Your task to perform on an android device: turn on location history Image 0: 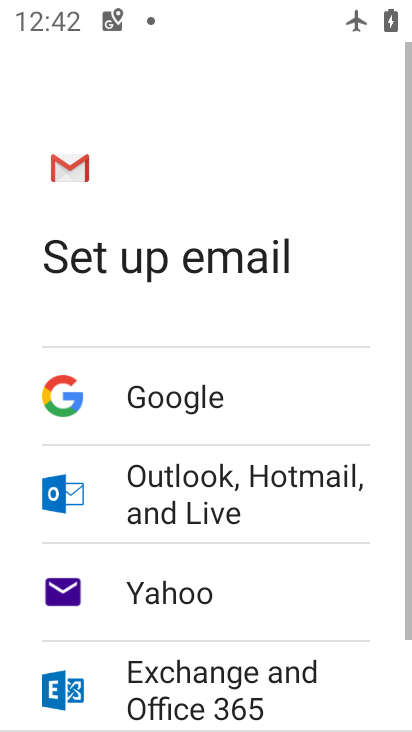
Step 0: press home button
Your task to perform on an android device: turn on location history Image 1: 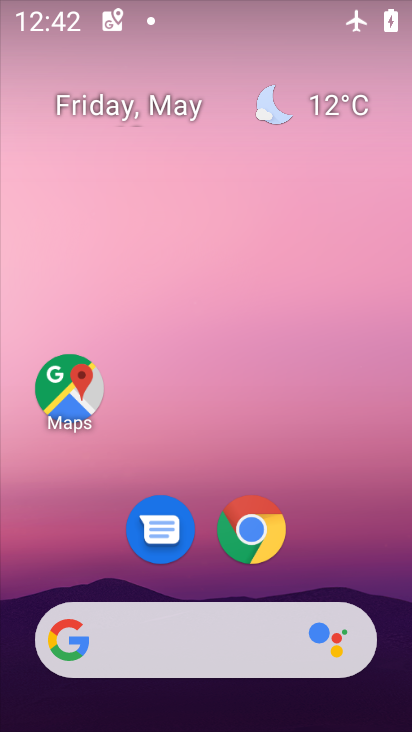
Step 1: drag from (355, 427) to (329, 243)
Your task to perform on an android device: turn on location history Image 2: 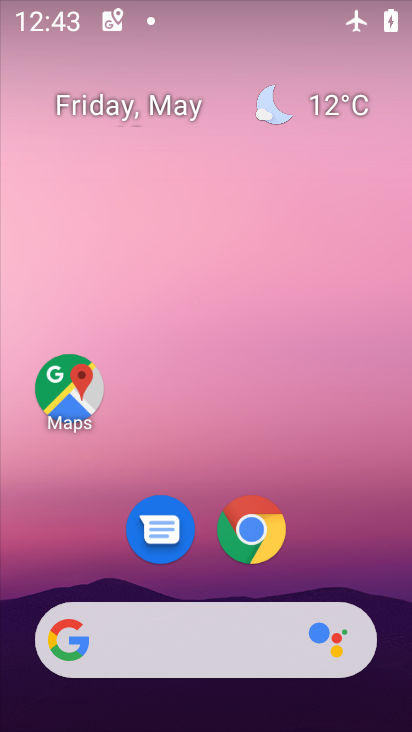
Step 2: drag from (292, 381) to (293, 183)
Your task to perform on an android device: turn on location history Image 3: 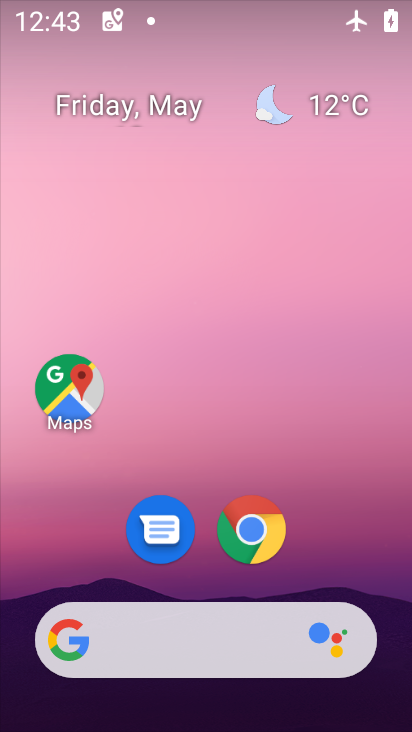
Step 3: drag from (198, 475) to (220, 258)
Your task to perform on an android device: turn on location history Image 4: 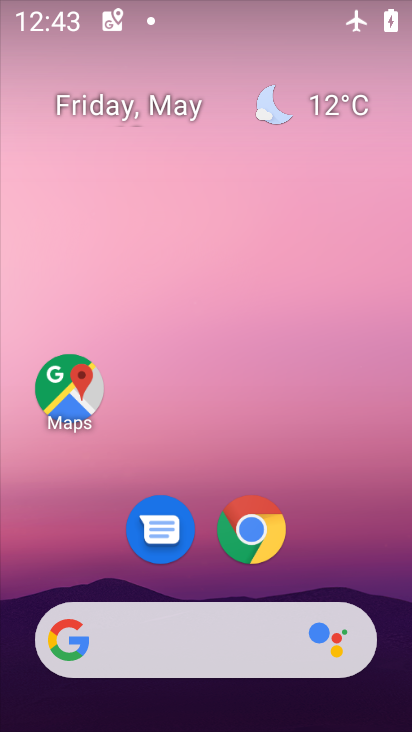
Step 4: drag from (181, 592) to (190, 254)
Your task to perform on an android device: turn on location history Image 5: 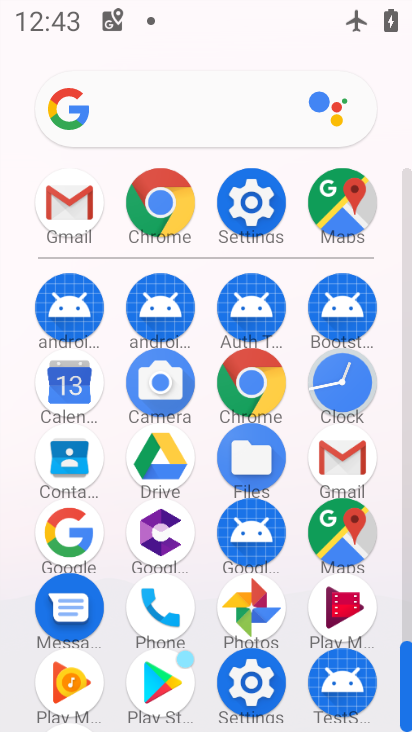
Step 5: click (237, 201)
Your task to perform on an android device: turn on location history Image 6: 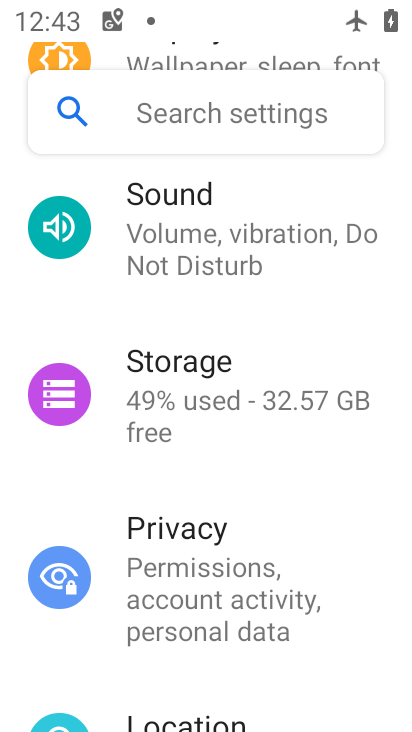
Step 6: drag from (152, 293) to (163, 598)
Your task to perform on an android device: turn on location history Image 7: 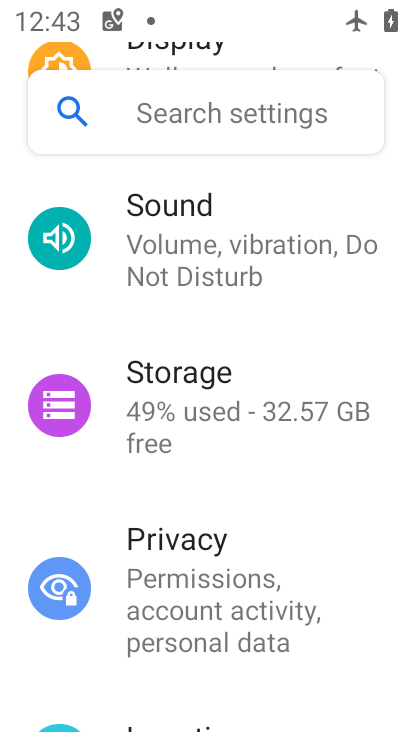
Step 7: drag from (244, 360) to (232, 545)
Your task to perform on an android device: turn on location history Image 8: 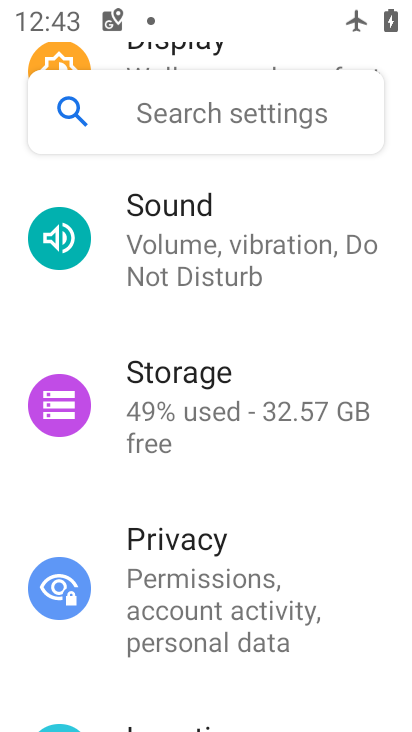
Step 8: drag from (204, 355) to (208, 606)
Your task to perform on an android device: turn on location history Image 9: 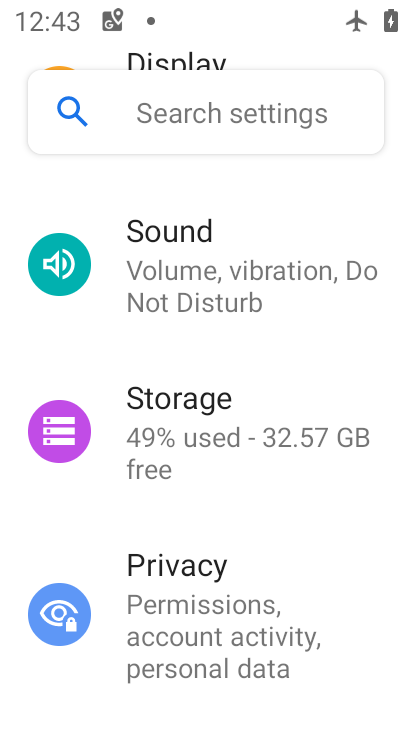
Step 9: drag from (194, 379) to (188, 560)
Your task to perform on an android device: turn on location history Image 10: 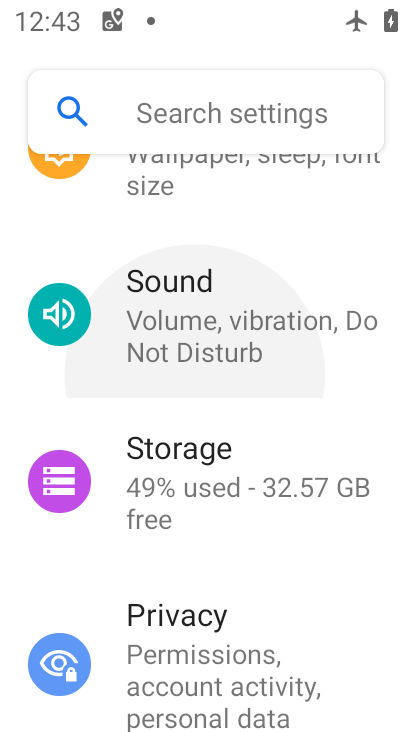
Step 10: drag from (210, 431) to (210, 516)
Your task to perform on an android device: turn on location history Image 11: 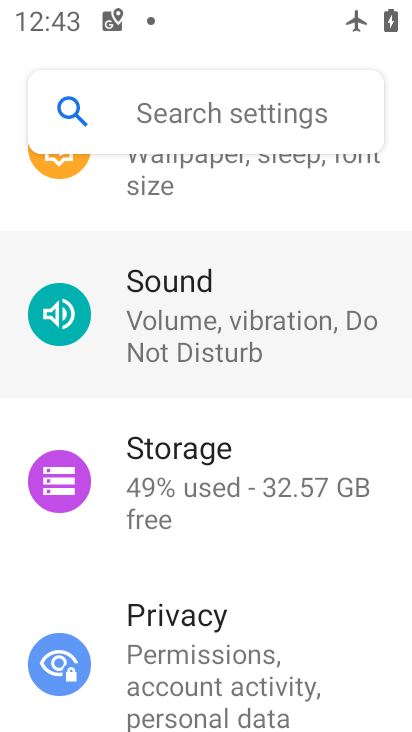
Step 11: drag from (209, 279) to (207, 642)
Your task to perform on an android device: turn on location history Image 12: 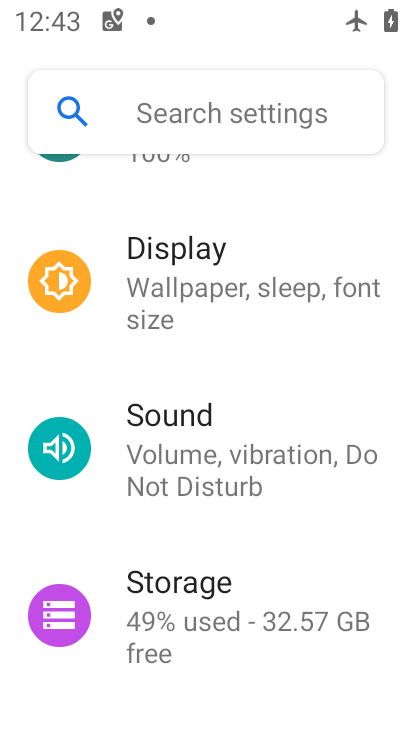
Step 12: drag from (244, 323) to (227, 713)
Your task to perform on an android device: turn on location history Image 13: 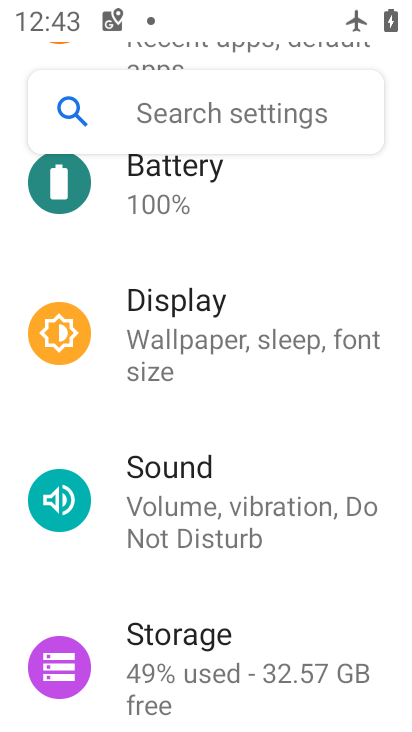
Step 13: drag from (159, 250) to (190, 554)
Your task to perform on an android device: turn on location history Image 14: 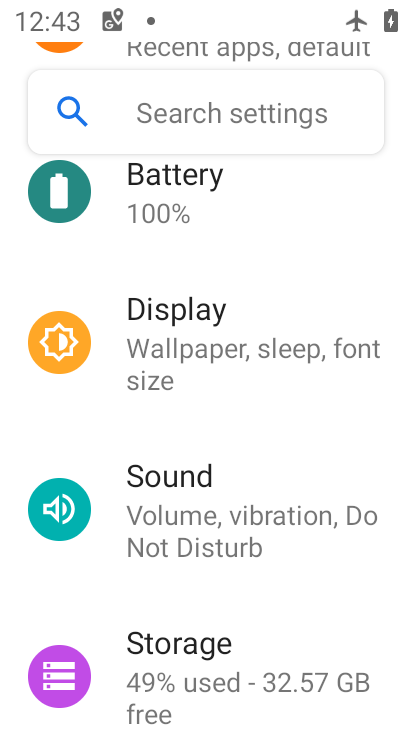
Step 14: drag from (202, 221) to (162, 585)
Your task to perform on an android device: turn on location history Image 15: 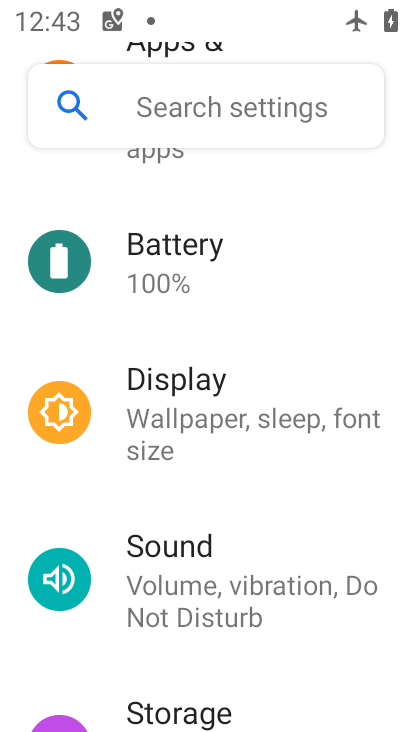
Step 15: drag from (164, 543) to (177, 612)
Your task to perform on an android device: turn on location history Image 16: 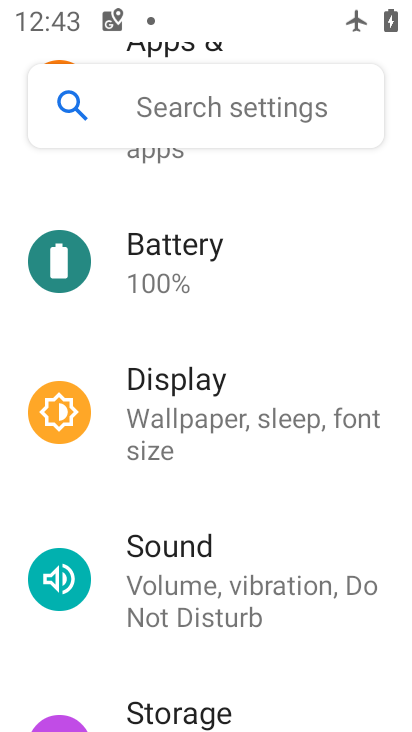
Step 16: drag from (260, 293) to (273, 583)
Your task to perform on an android device: turn on location history Image 17: 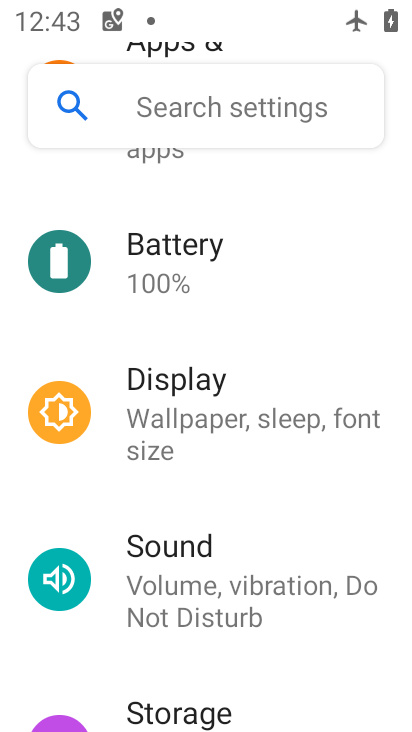
Step 17: drag from (278, 342) to (189, 532)
Your task to perform on an android device: turn on location history Image 18: 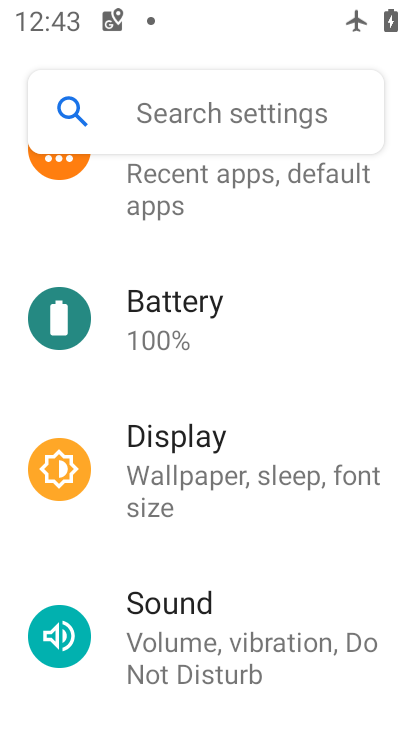
Step 18: drag from (156, 271) to (177, 580)
Your task to perform on an android device: turn on location history Image 19: 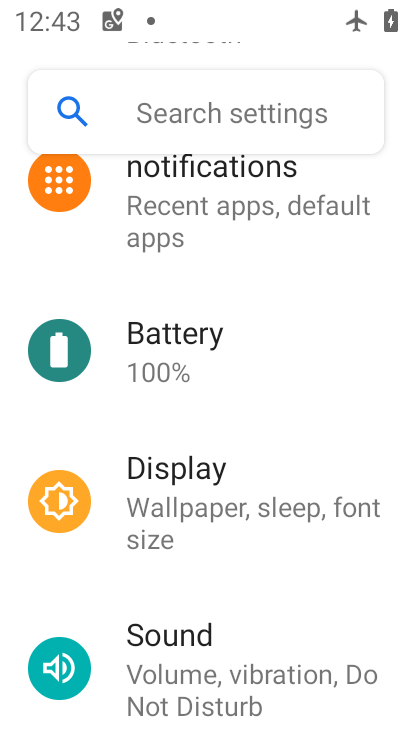
Step 19: drag from (241, 403) to (247, 603)
Your task to perform on an android device: turn on location history Image 20: 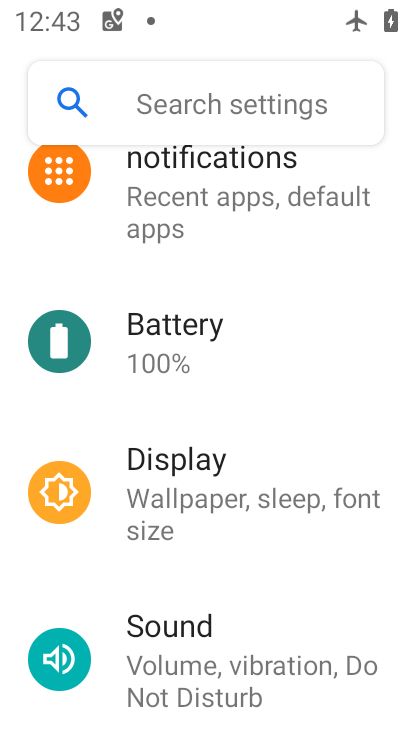
Step 20: drag from (224, 302) to (225, 551)
Your task to perform on an android device: turn on location history Image 21: 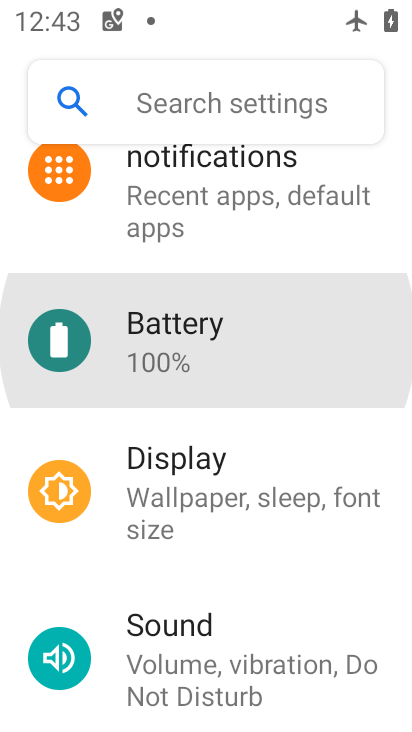
Step 21: drag from (158, 397) to (168, 483)
Your task to perform on an android device: turn on location history Image 22: 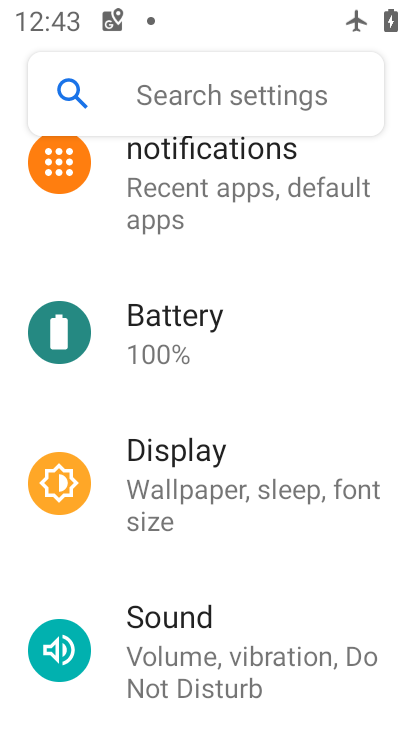
Step 22: drag from (189, 510) to (190, 578)
Your task to perform on an android device: turn on location history Image 23: 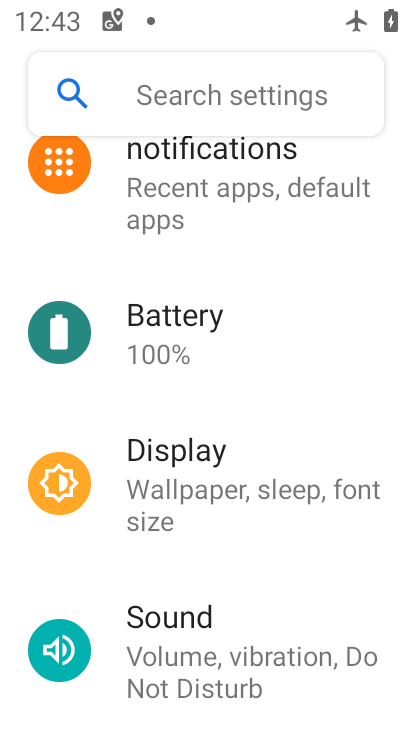
Step 23: drag from (200, 347) to (217, 659)
Your task to perform on an android device: turn on location history Image 24: 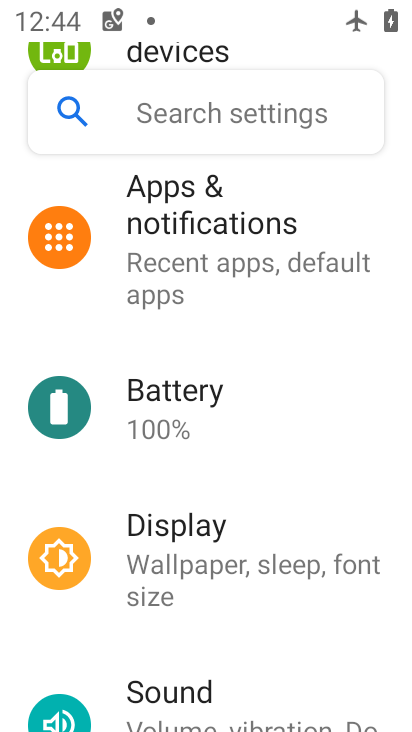
Step 24: drag from (269, 706) to (264, 357)
Your task to perform on an android device: turn on location history Image 25: 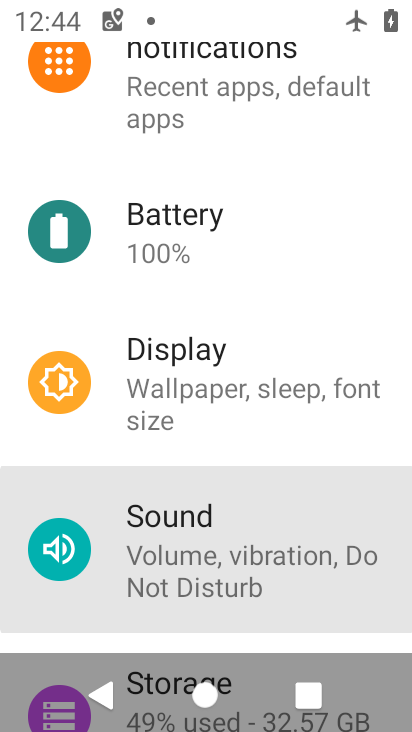
Step 25: drag from (292, 646) to (292, 430)
Your task to perform on an android device: turn on location history Image 26: 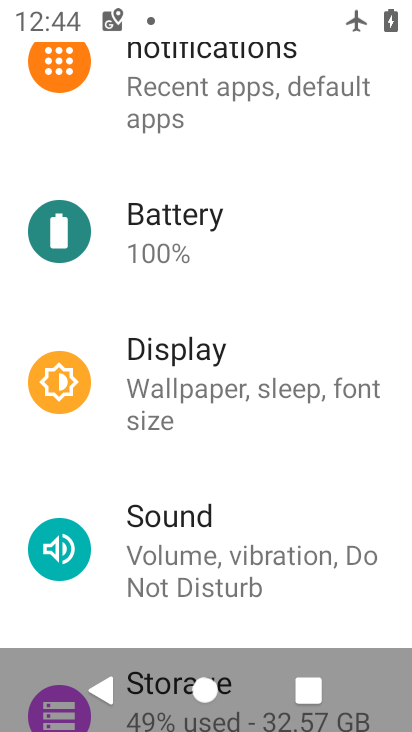
Step 26: drag from (282, 662) to (273, 288)
Your task to perform on an android device: turn on location history Image 27: 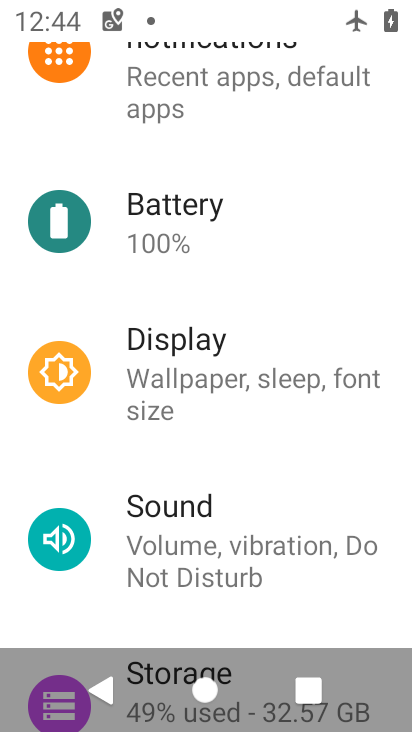
Step 27: drag from (278, 469) to (278, 249)
Your task to perform on an android device: turn on location history Image 28: 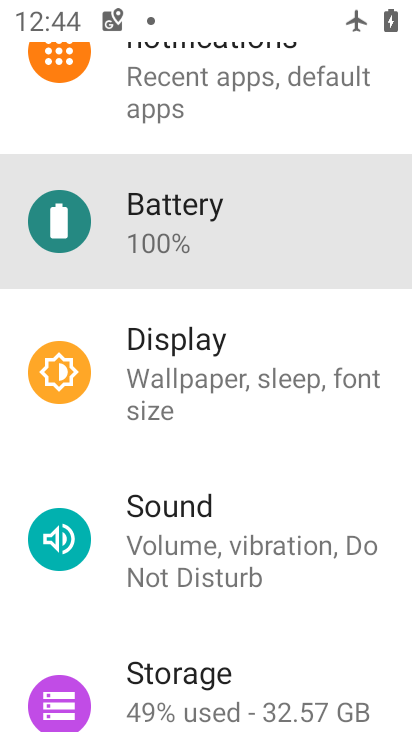
Step 28: drag from (269, 410) to (235, 341)
Your task to perform on an android device: turn on location history Image 29: 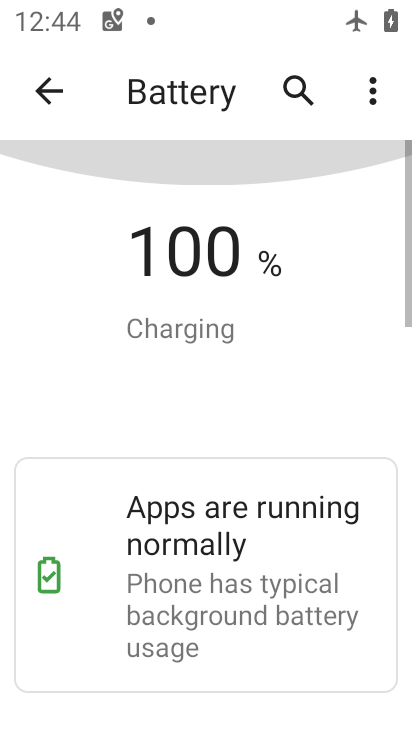
Step 29: drag from (268, 548) to (269, 174)
Your task to perform on an android device: turn on location history Image 30: 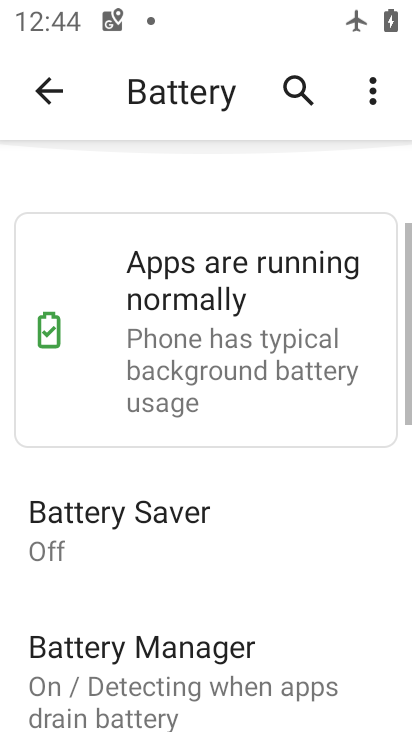
Step 30: drag from (245, 521) to (260, 366)
Your task to perform on an android device: turn on location history Image 31: 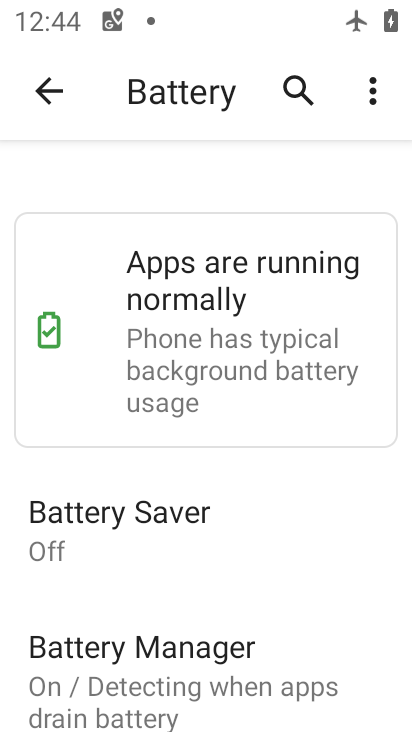
Step 31: click (47, 83)
Your task to perform on an android device: turn on location history Image 32: 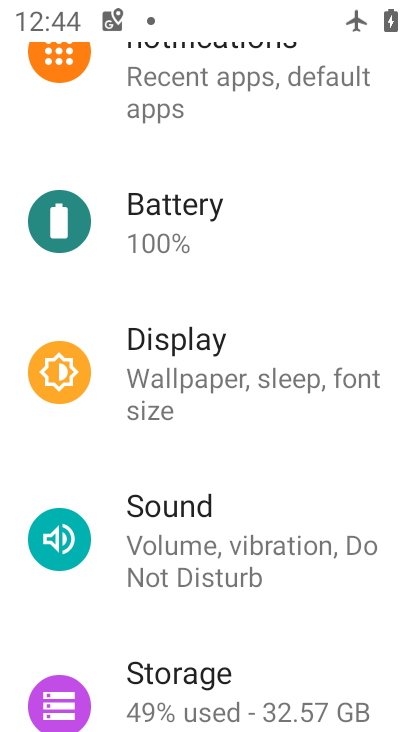
Step 32: drag from (243, 545) to (266, 381)
Your task to perform on an android device: turn on location history Image 33: 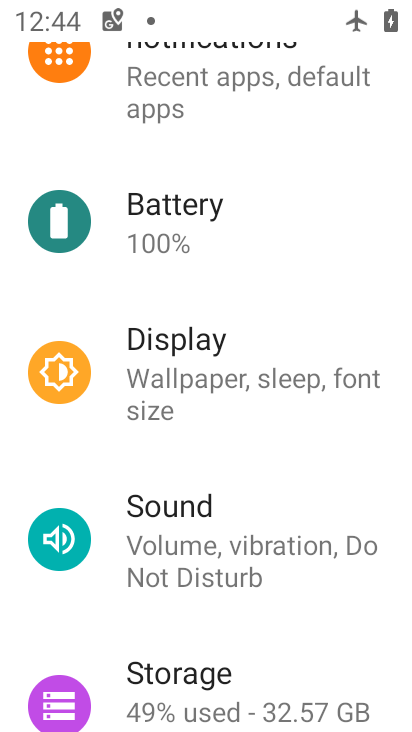
Step 33: drag from (244, 570) to (259, 289)
Your task to perform on an android device: turn on location history Image 34: 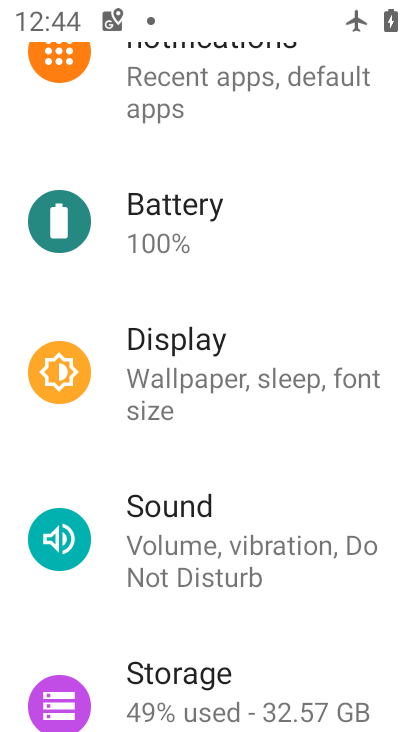
Step 34: drag from (239, 487) to (248, 236)
Your task to perform on an android device: turn on location history Image 35: 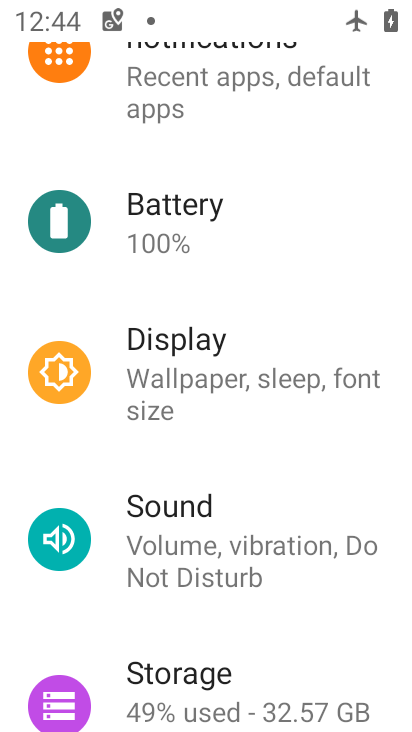
Step 35: drag from (209, 517) to (274, 251)
Your task to perform on an android device: turn on location history Image 36: 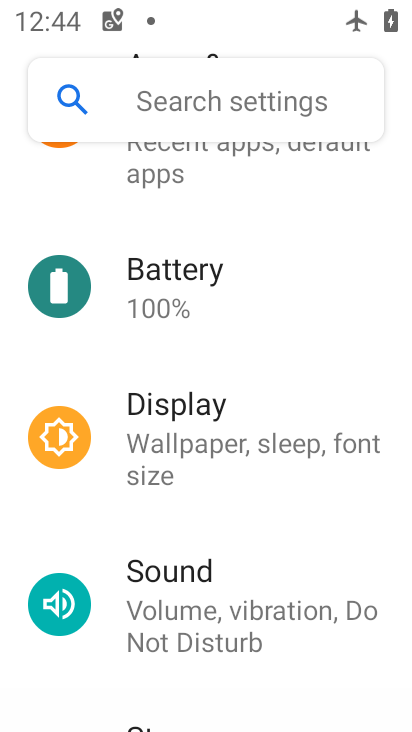
Step 36: drag from (268, 499) to (299, 188)
Your task to perform on an android device: turn on location history Image 37: 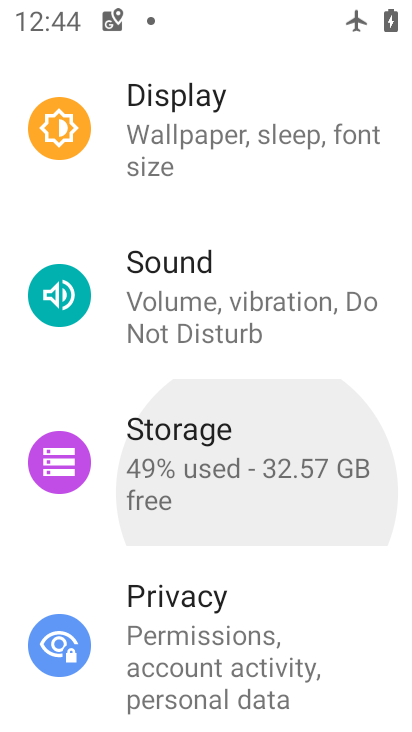
Step 37: drag from (253, 485) to (248, 286)
Your task to perform on an android device: turn on location history Image 38: 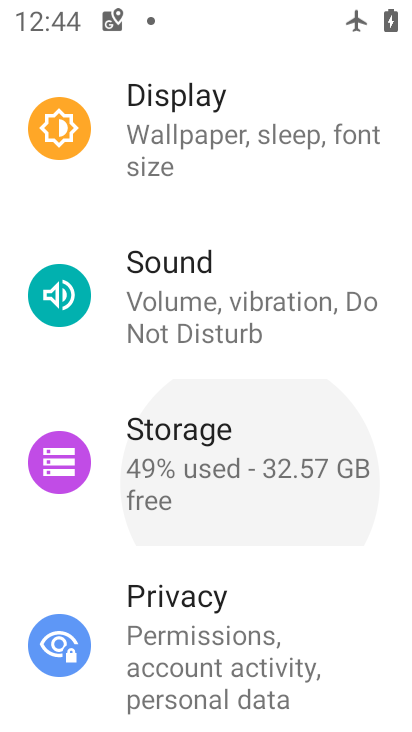
Step 38: drag from (233, 541) to (274, 304)
Your task to perform on an android device: turn on location history Image 39: 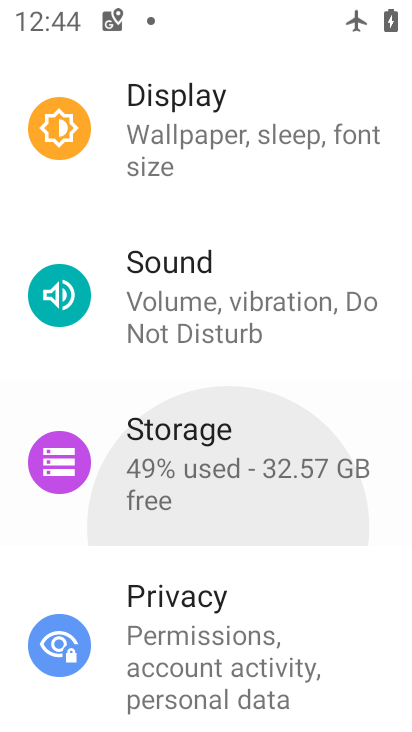
Step 39: drag from (259, 604) to (273, 311)
Your task to perform on an android device: turn on location history Image 40: 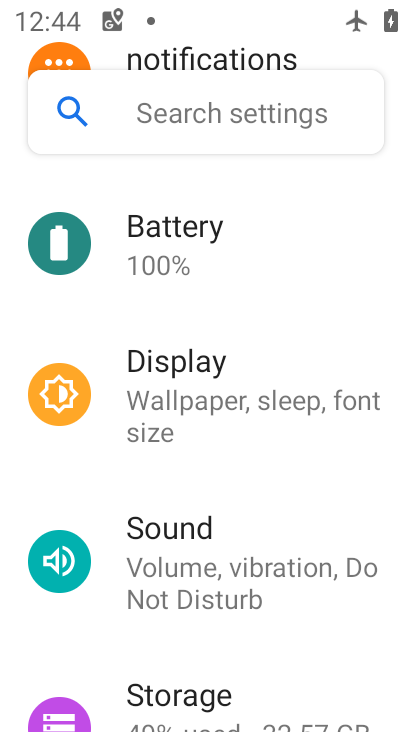
Step 40: drag from (246, 609) to (271, 312)
Your task to perform on an android device: turn on location history Image 41: 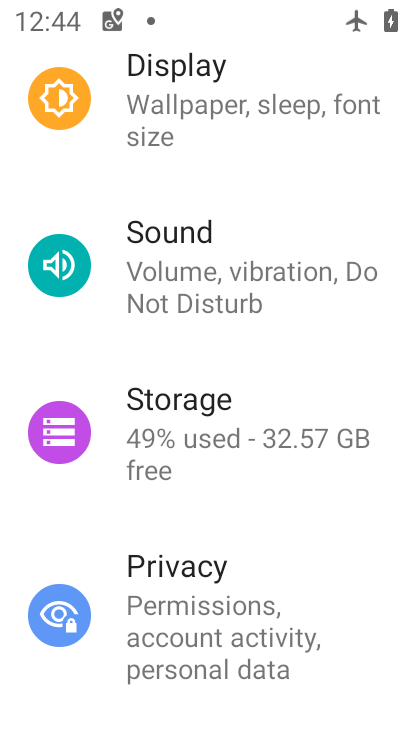
Step 41: drag from (225, 595) to (227, 302)
Your task to perform on an android device: turn on location history Image 42: 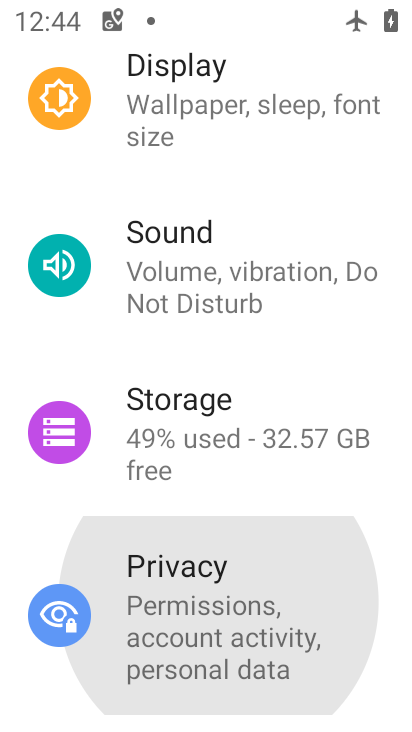
Step 42: drag from (217, 620) to (217, 241)
Your task to perform on an android device: turn on location history Image 43: 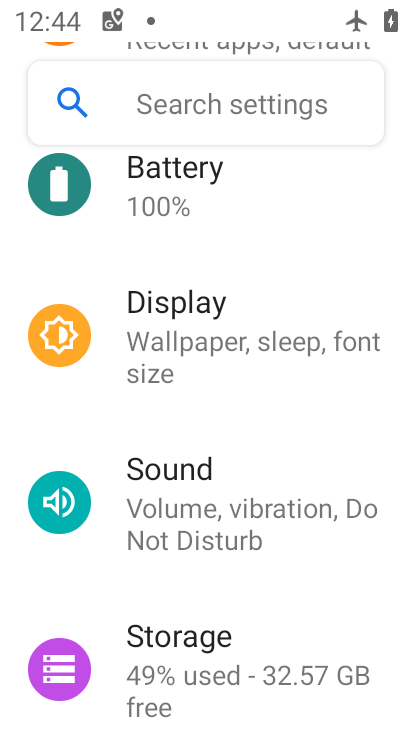
Step 43: drag from (199, 510) to (230, 200)
Your task to perform on an android device: turn on location history Image 44: 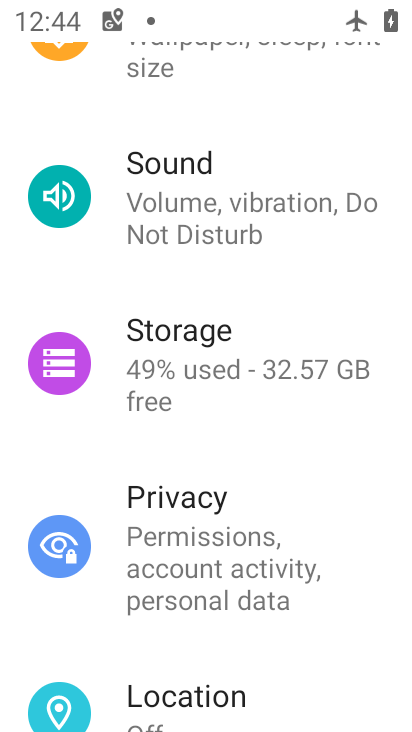
Step 44: drag from (254, 225) to (246, 543)
Your task to perform on an android device: turn on location history Image 45: 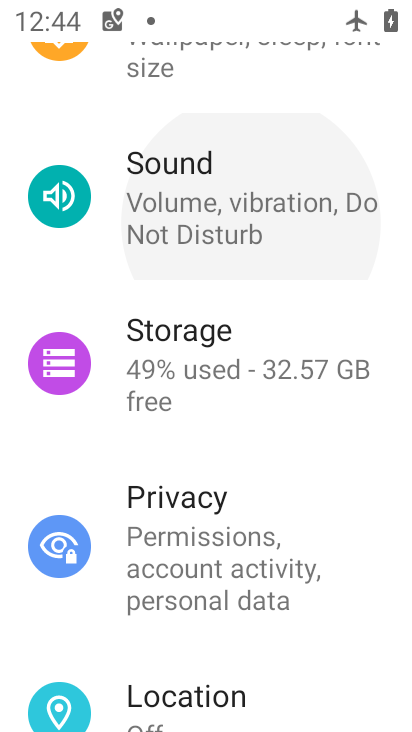
Step 45: drag from (227, 283) to (244, 627)
Your task to perform on an android device: turn on location history Image 46: 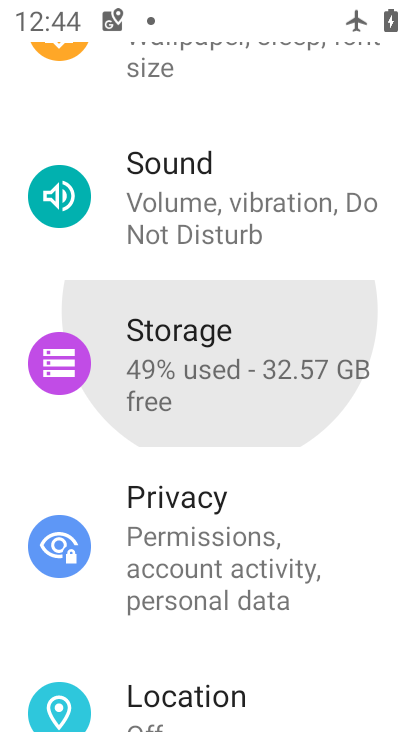
Step 46: drag from (227, 258) to (202, 532)
Your task to perform on an android device: turn on location history Image 47: 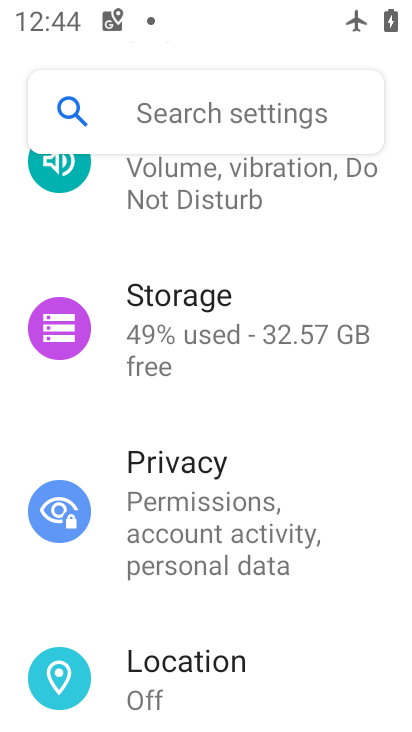
Step 47: drag from (204, 141) to (196, 325)
Your task to perform on an android device: turn on location history Image 48: 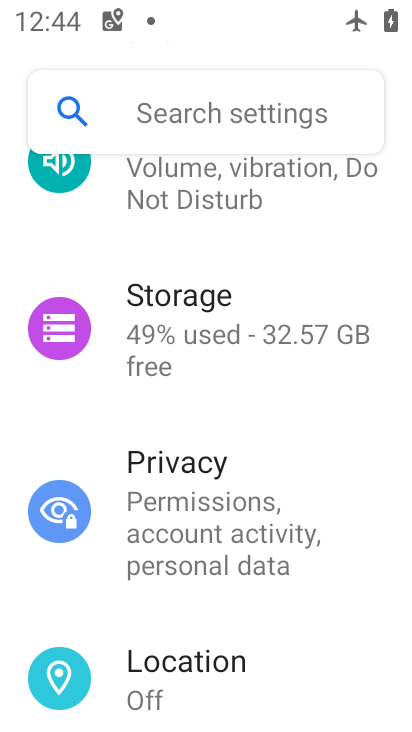
Step 48: drag from (185, 82) to (171, 385)
Your task to perform on an android device: turn on location history Image 49: 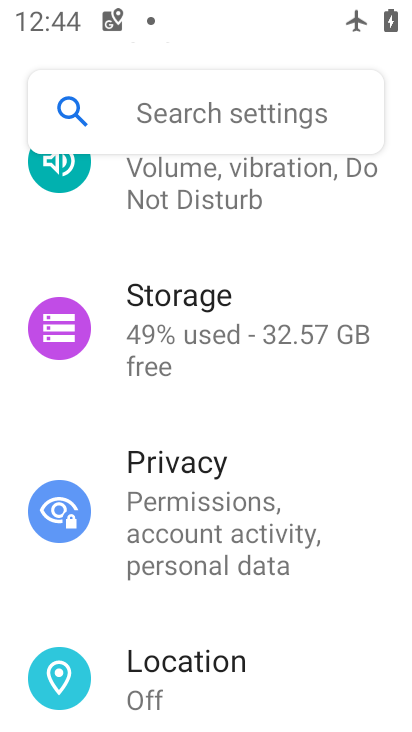
Step 49: click (198, 116)
Your task to perform on an android device: turn on location history Image 50: 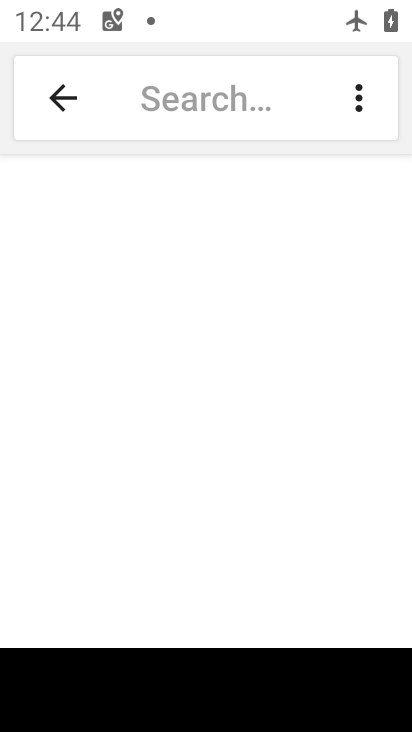
Step 50: click (147, 672)
Your task to perform on an android device: turn on location history Image 51: 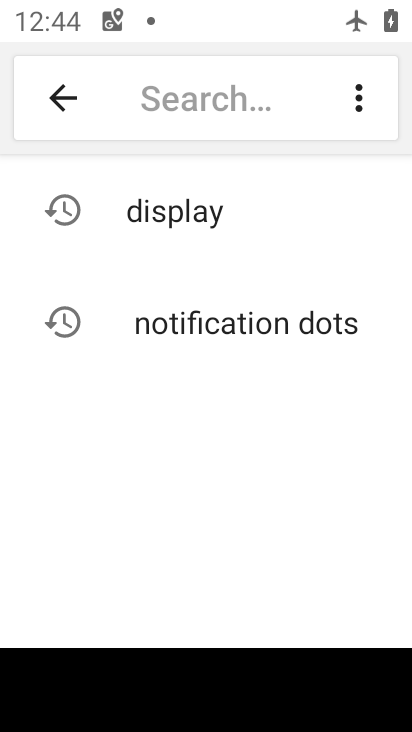
Step 51: click (56, 99)
Your task to perform on an android device: turn on location history Image 52: 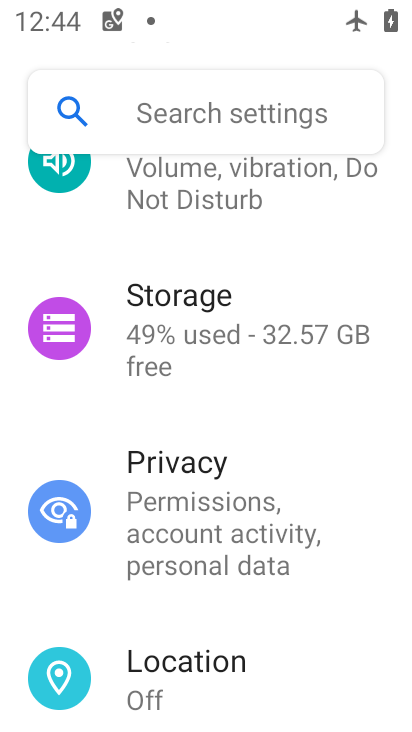
Step 52: click (160, 665)
Your task to perform on an android device: turn on location history Image 53: 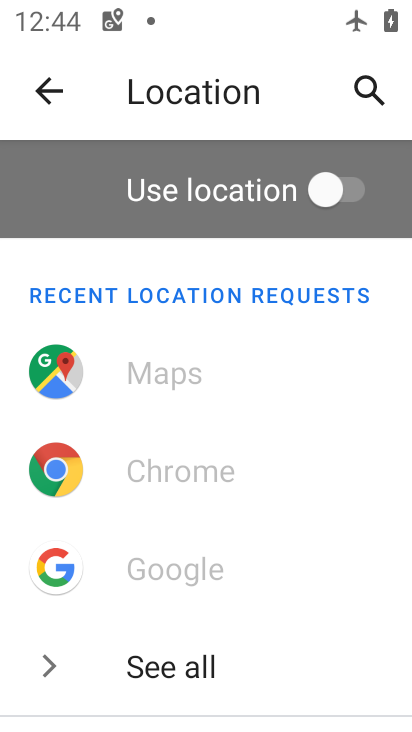
Step 53: click (322, 188)
Your task to perform on an android device: turn on location history Image 54: 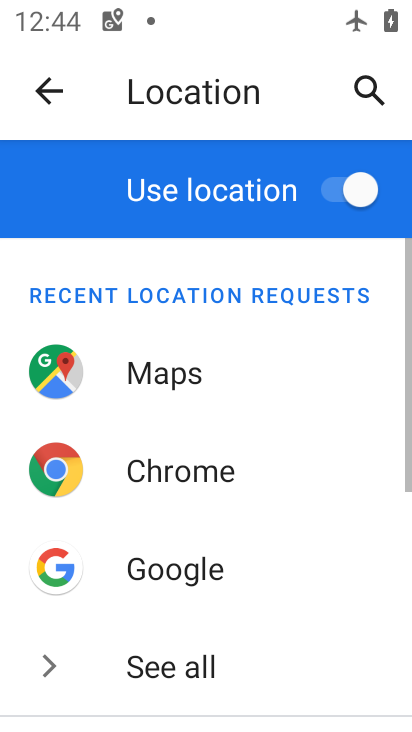
Step 54: task complete